Your task to perform on an android device: Search for the best rated book on Goodreads. Image 0: 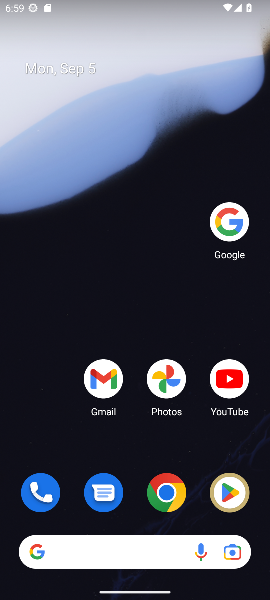
Step 0: click (226, 222)
Your task to perform on an android device: Search for the best rated book on Goodreads. Image 1: 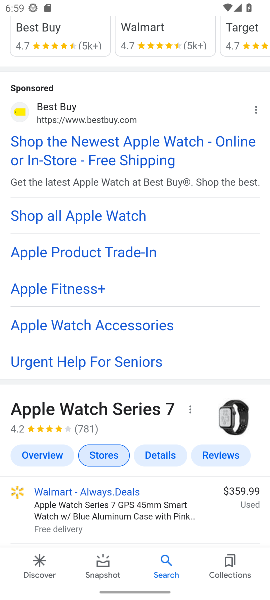
Step 1: drag from (136, 121) to (81, 555)
Your task to perform on an android device: Search for the best rated book on Goodreads. Image 2: 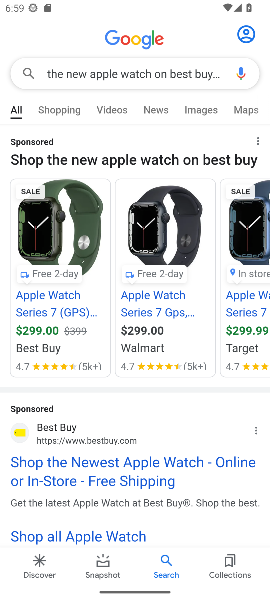
Step 2: click (132, 62)
Your task to perform on an android device: Search for the best rated book on Goodreads. Image 3: 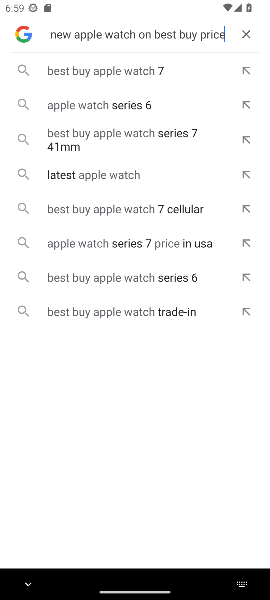
Step 3: click (251, 21)
Your task to perform on an android device: Search for the best rated book on Goodreads. Image 4: 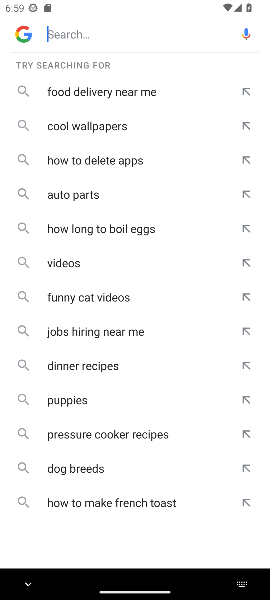
Step 4: click (139, 28)
Your task to perform on an android device: Search for the best rated book on Goodreads. Image 5: 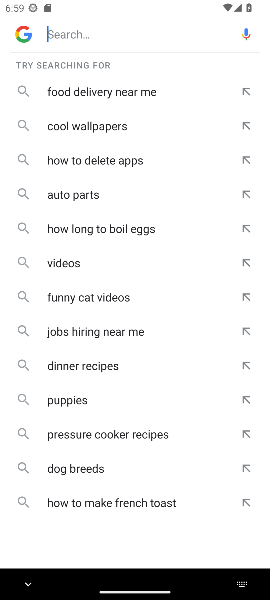
Step 5: type "the best rated book on Goodreads "
Your task to perform on an android device: Search for the best rated book on Goodreads. Image 6: 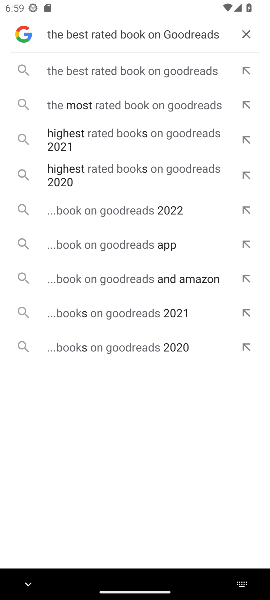
Step 6: click (130, 64)
Your task to perform on an android device: Search for the best rated book on Goodreads. Image 7: 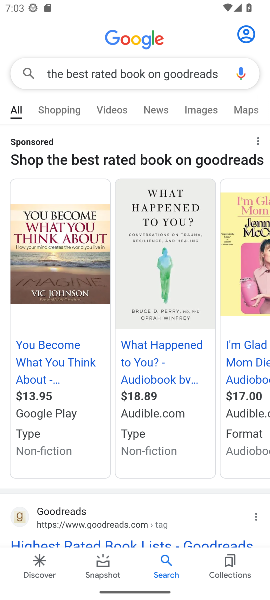
Step 7: task complete